Your task to perform on an android device: turn pop-ups off in chrome Image 0: 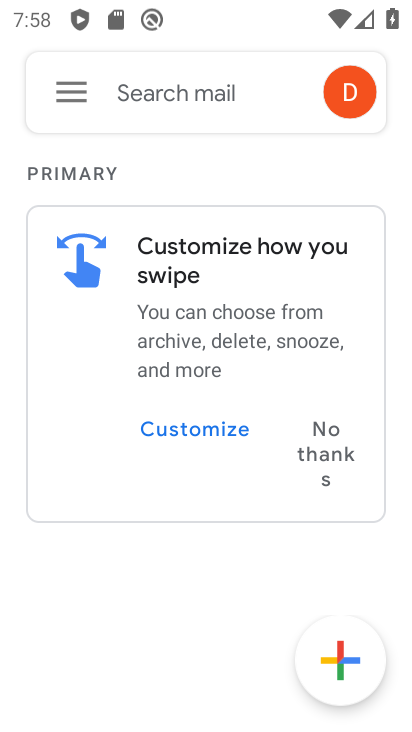
Step 0: press home button
Your task to perform on an android device: turn pop-ups off in chrome Image 1: 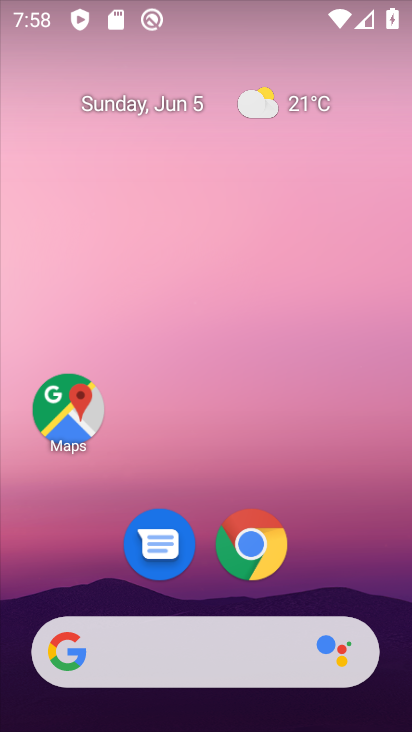
Step 1: click (248, 554)
Your task to perform on an android device: turn pop-ups off in chrome Image 2: 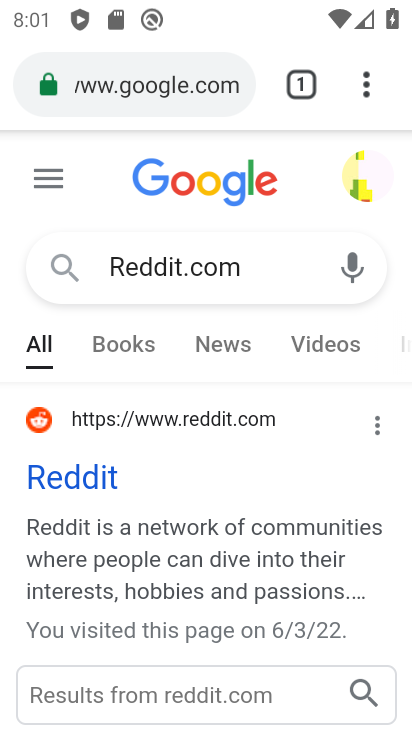
Step 2: press home button
Your task to perform on an android device: turn pop-ups off in chrome Image 3: 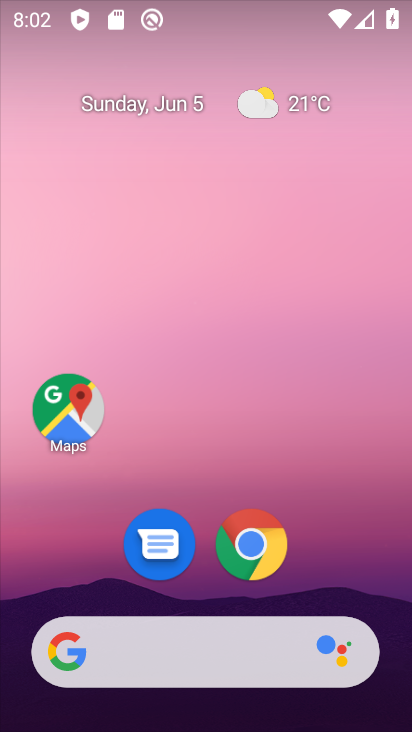
Step 3: click (242, 537)
Your task to perform on an android device: turn pop-ups off in chrome Image 4: 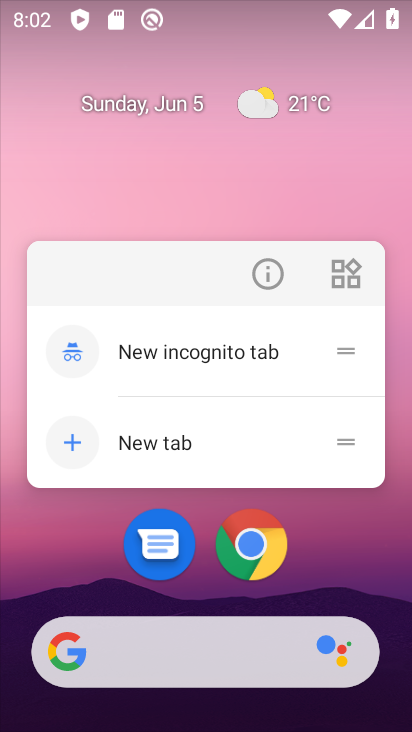
Step 4: click (260, 544)
Your task to perform on an android device: turn pop-ups off in chrome Image 5: 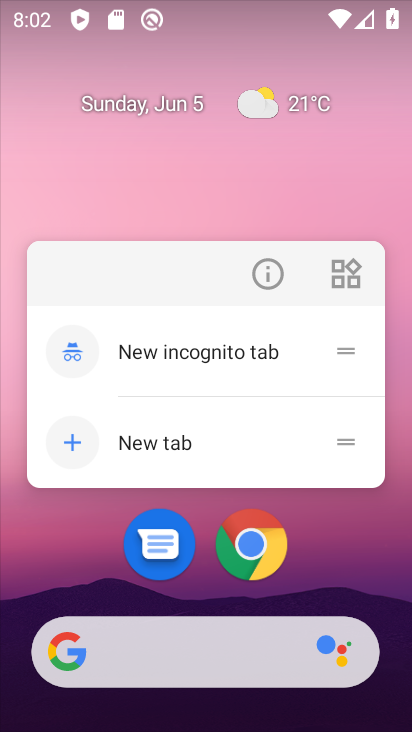
Step 5: click (256, 533)
Your task to perform on an android device: turn pop-ups off in chrome Image 6: 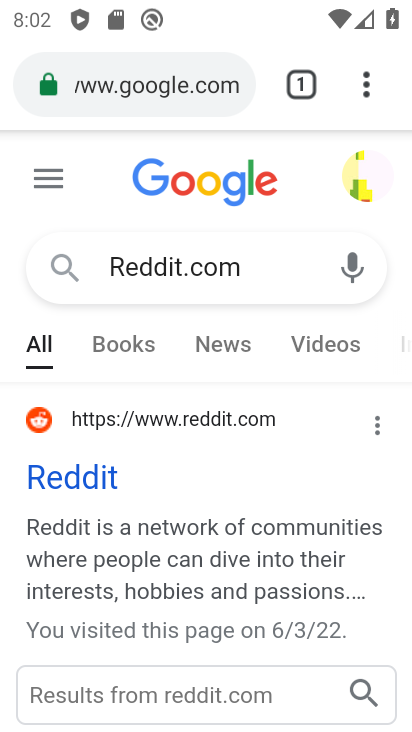
Step 6: click (361, 74)
Your task to perform on an android device: turn pop-ups off in chrome Image 7: 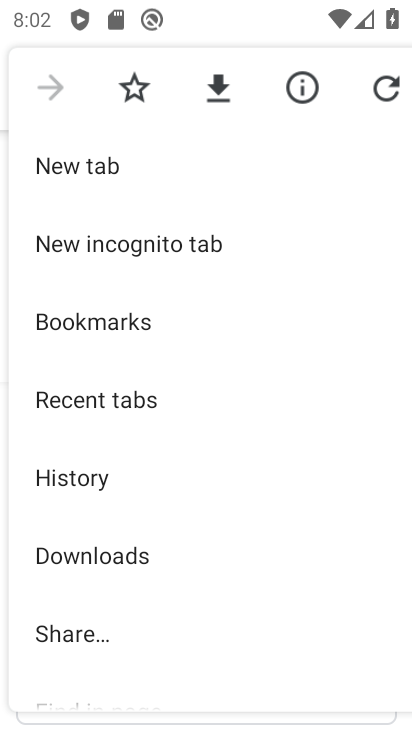
Step 7: drag from (181, 676) to (190, 392)
Your task to perform on an android device: turn pop-ups off in chrome Image 8: 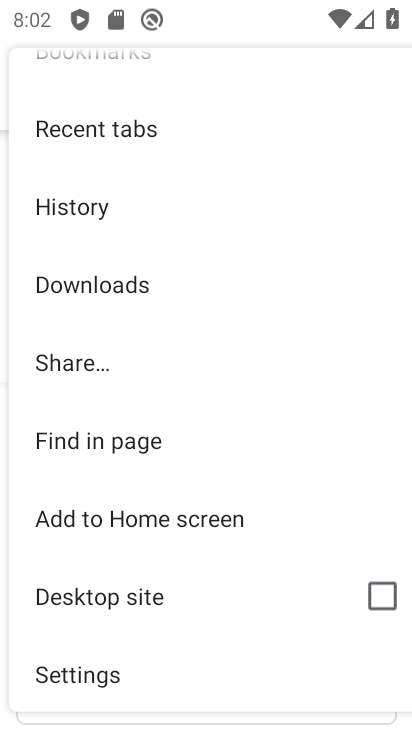
Step 8: click (84, 680)
Your task to perform on an android device: turn pop-ups off in chrome Image 9: 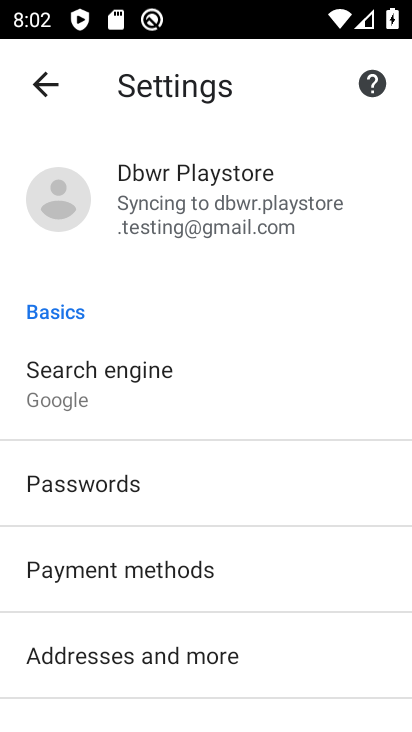
Step 9: drag from (266, 640) to (257, 181)
Your task to perform on an android device: turn pop-ups off in chrome Image 10: 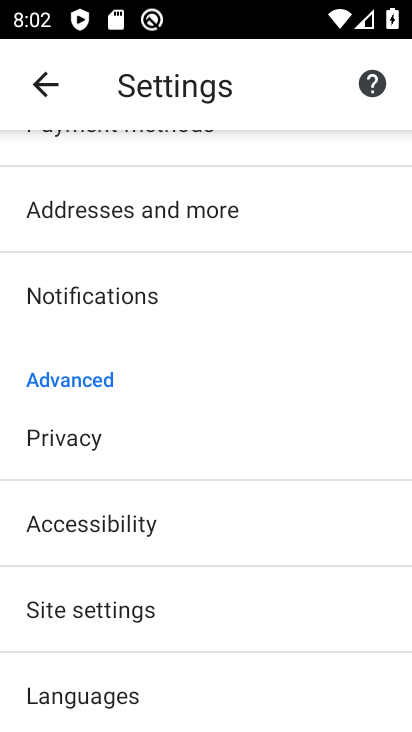
Step 10: click (82, 616)
Your task to perform on an android device: turn pop-ups off in chrome Image 11: 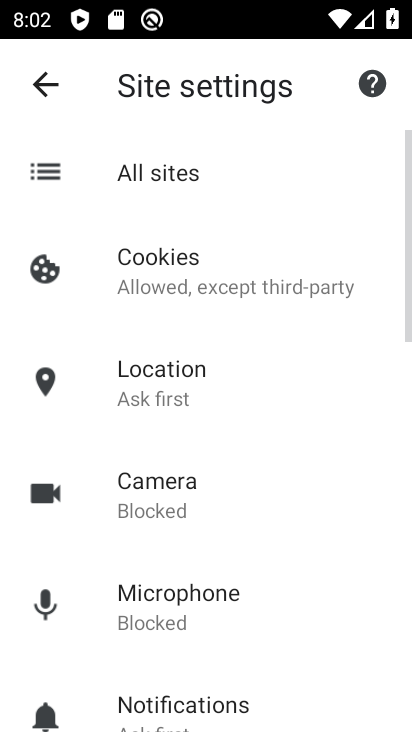
Step 11: drag from (263, 619) to (282, 223)
Your task to perform on an android device: turn pop-ups off in chrome Image 12: 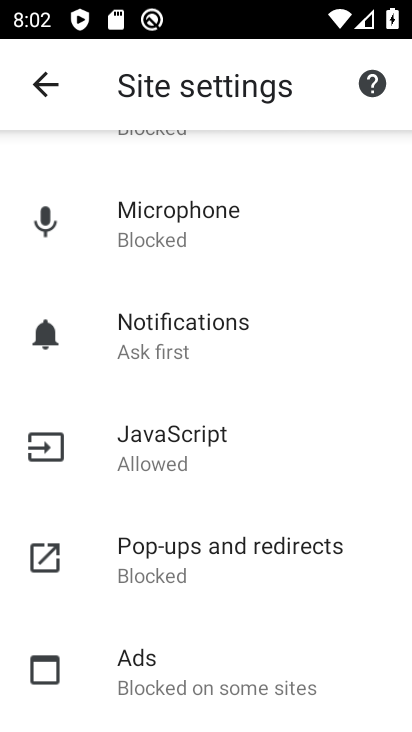
Step 12: click (171, 559)
Your task to perform on an android device: turn pop-ups off in chrome Image 13: 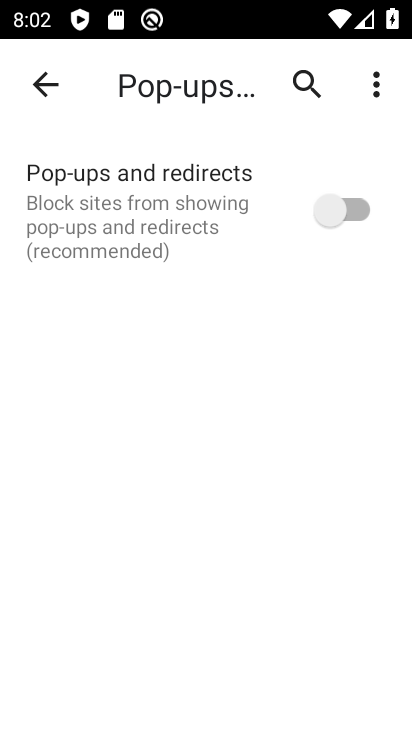
Step 13: task complete